Your task to perform on an android device: Open the calendar app, open the side menu, and click the "Day" option Image 0: 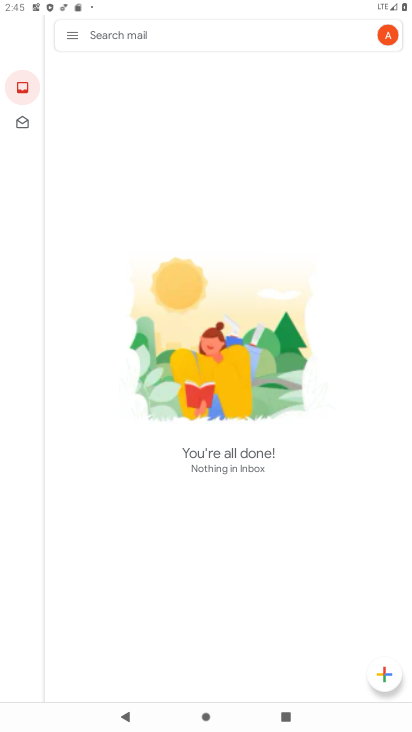
Step 0: press home button
Your task to perform on an android device: Open the calendar app, open the side menu, and click the "Day" option Image 1: 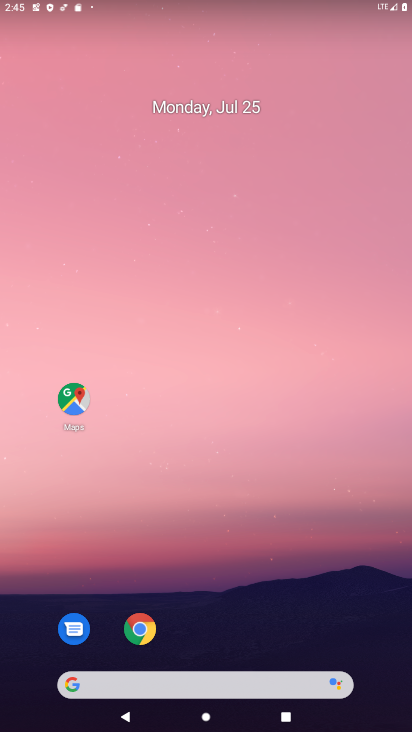
Step 1: drag from (197, 653) to (234, 28)
Your task to perform on an android device: Open the calendar app, open the side menu, and click the "Day" option Image 2: 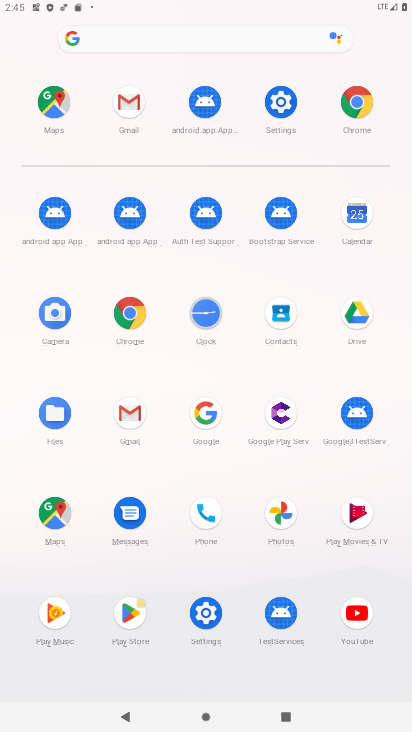
Step 2: click (364, 201)
Your task to perform on an android device: Open the calendar app, open the side menu, and click the "Day" option Image 3: 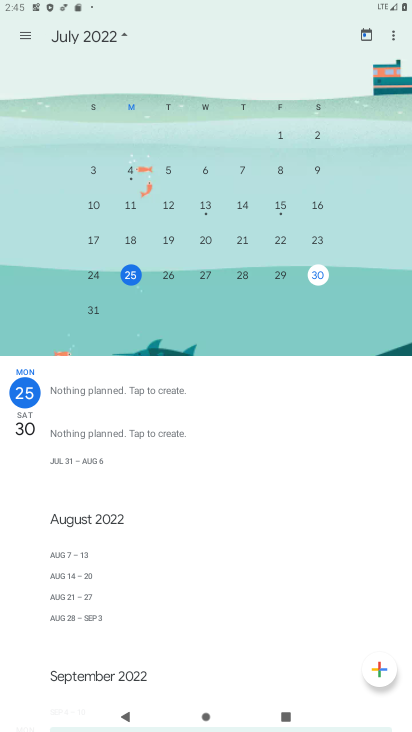
Step 3: click (367, 36)
Your task to perform on an android device: Open the calendar app, open the side menu, and click the "Day" option Image 4: 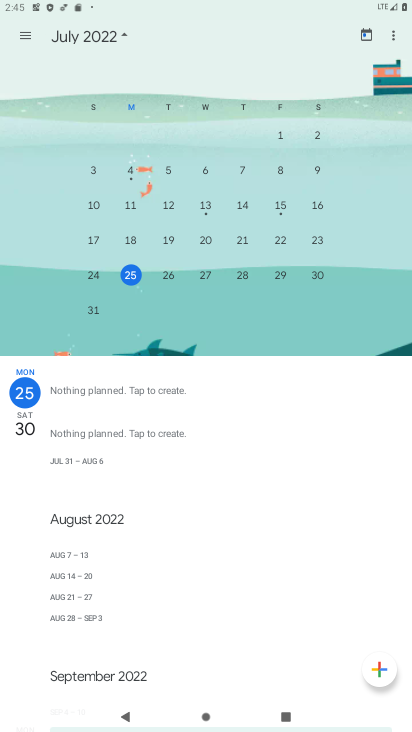
Step 4: click (17, 29)
Your task to perform on an android device: Open the calendar app, open the side menu, and click the "Day" option Image 5: 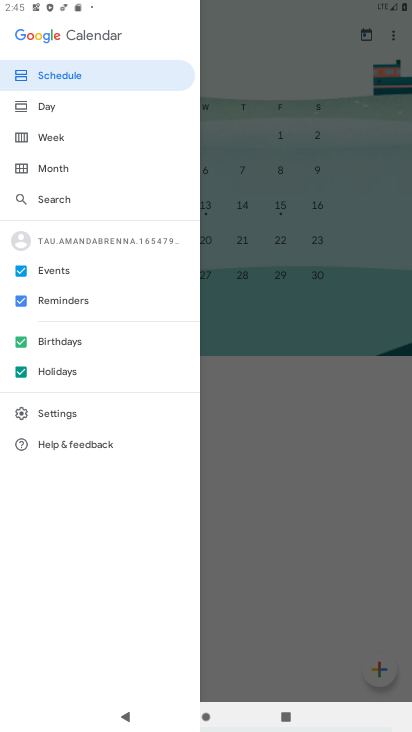
Step 5: click (38, 107)
Your task to perform on an android device: Open the calendar app, open the side menu, and click the "Day" option Image 6: 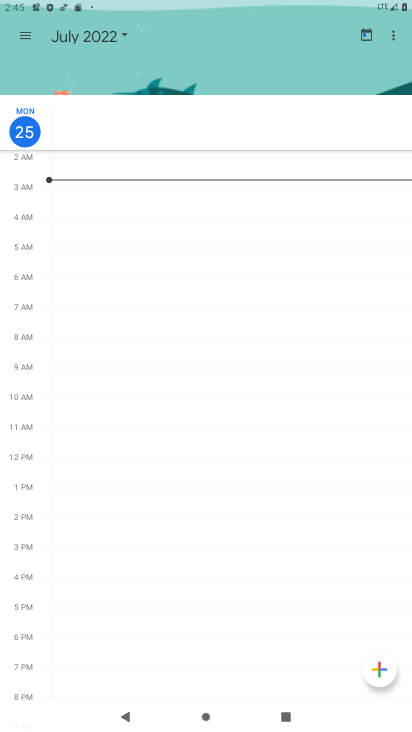
Step 6: task complete